Your task to perform on an android device: change the clock display to show seconds Image 0: 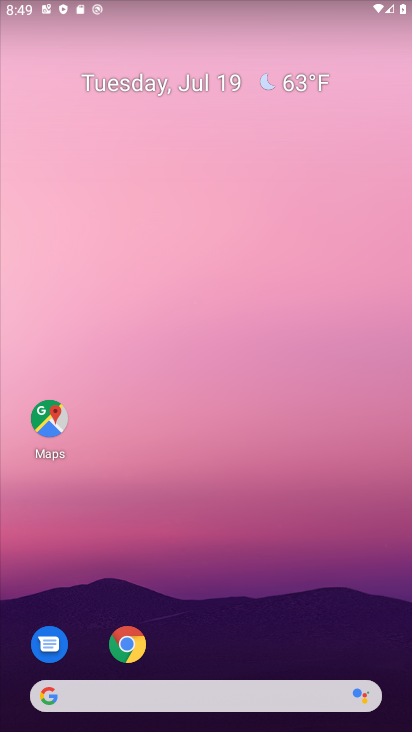
Step 0: drag from (265, 686) to (196, 153)
Your task to perform on an android device: change the clock display to show seconds Image 1: 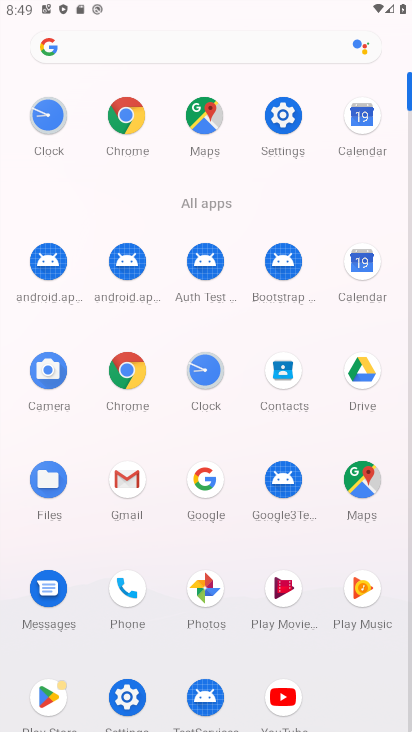
Step 1: click (202, 375)
Your task to perform on an android device: change the clock display to show seconds Image 2: 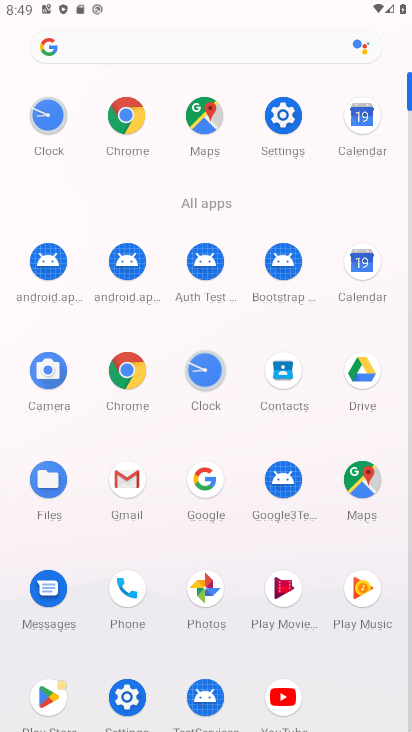
Step 2: click (217, 365)
Your task to perform on an android device: change the clock display to show seconds Image 3: 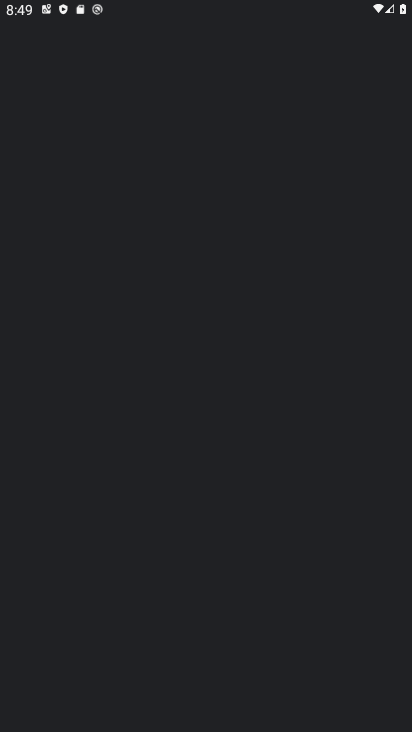
Step 3: click (216, 371)
Your task to perform on an android device: change the clock display to show seconds Image 4: 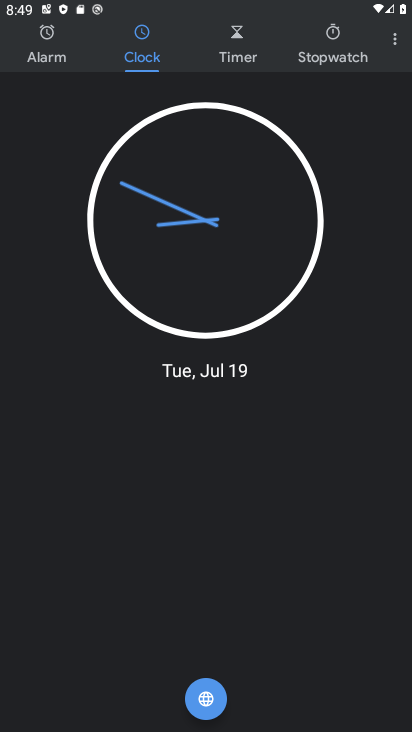
Step 4: click (380, 43)
Your task to perform on an android device: change the clock display to show seconds Image 5: 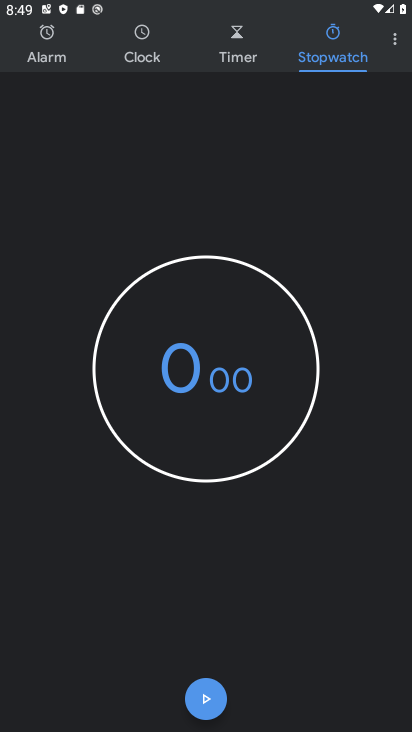
Step 5: click (393, 49)
Your task to perform on an android device: change the clock display to show seconds Image 6: 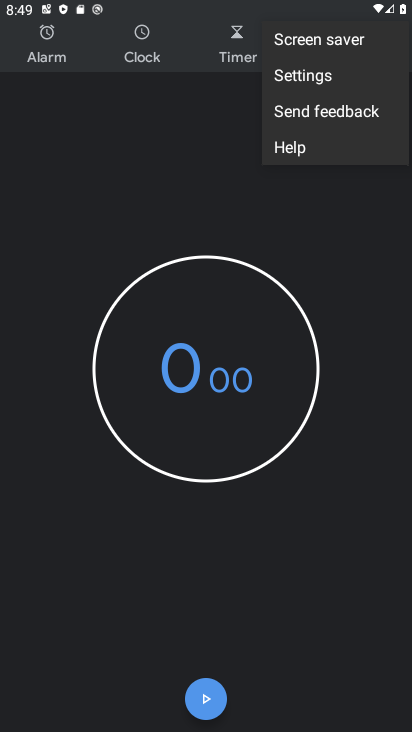
Step 6: click (308, 70)
Your task to perform on an android device: change the clock display to show seconds Image 7: 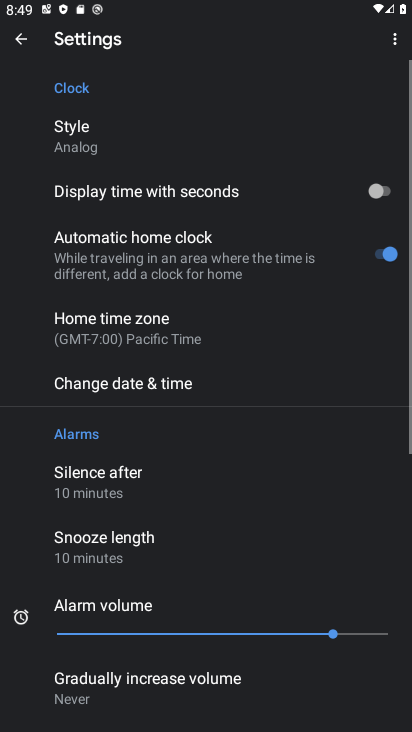
Step 7: click (90, 136)
Your task to perform on an android device: change the clock display to show seconds Image 8: 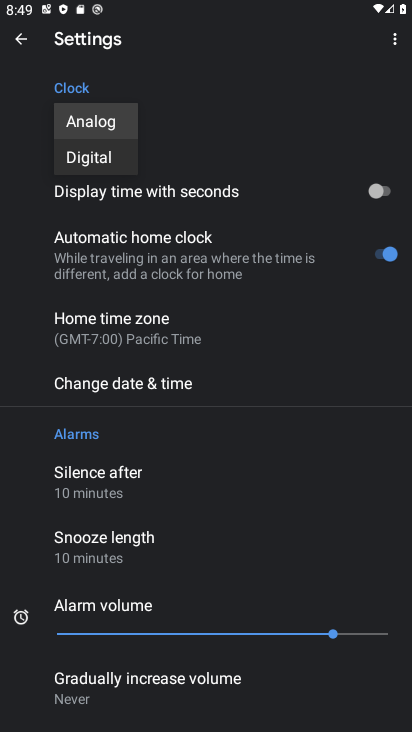
Step 8: click (232, 125)
Your task to perform on an android device: change the clock display to show seconds Image 9: 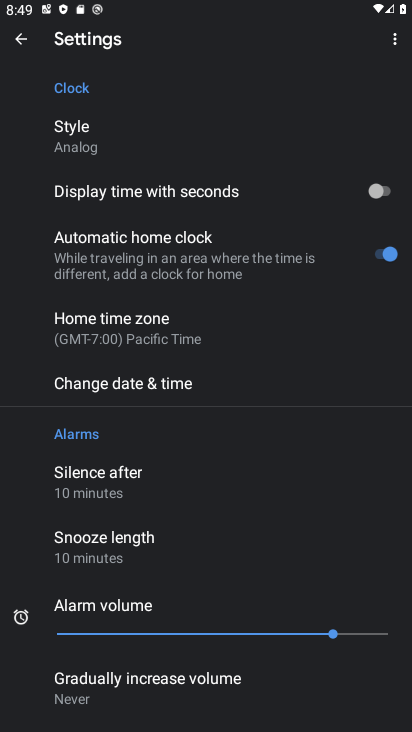
Step 9: click (375, 193)
Your task to perform on an android device: change the clock display to show seconds Image 10: 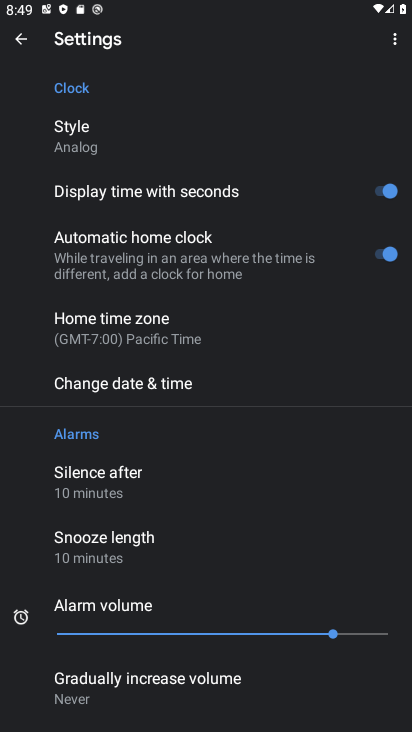
Step 10: task complete